Your task to perform on an android device: Go to Google maps Image 0: 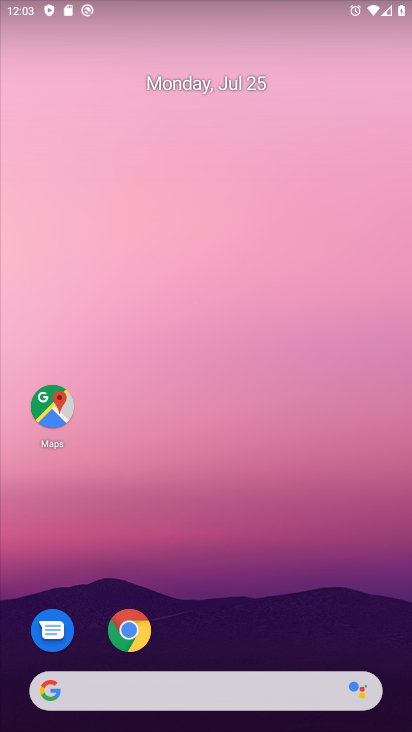
Step 0: drag from (266, 709) to (223, 151)
Your task to perform on an android device: Go to Google maps Image 1: 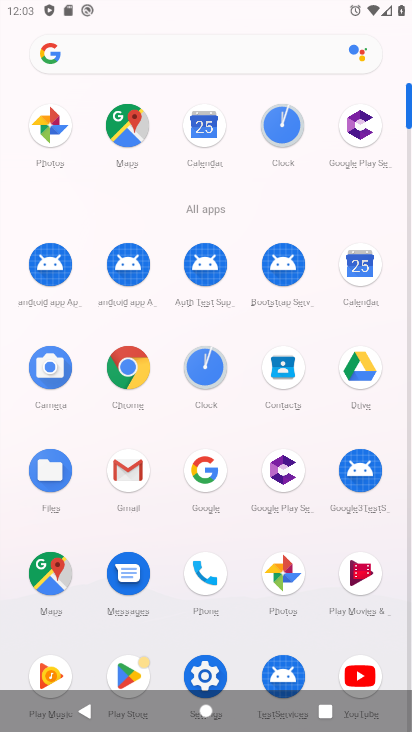
Step 1: click (45, 572)
Your task to perform on an android device: Go to Google maps Image 2: 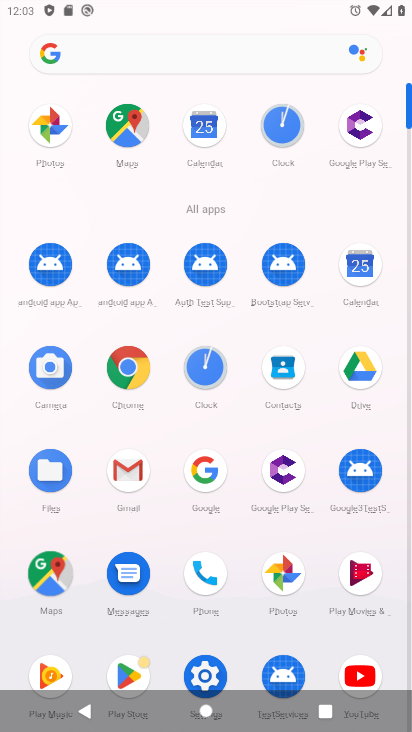
Step 2: click (53, 566)
Your task to perform on an android device: Go to Google maps Image 3: 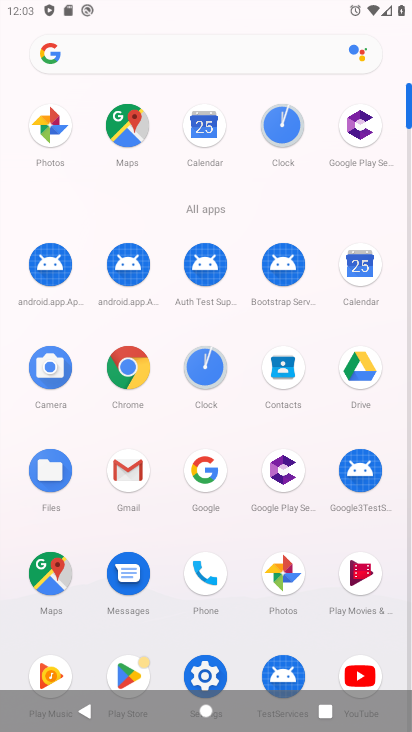
Step 3: click (59, 562)
Your task to perform on an android device: Go to Google maps Image 4: 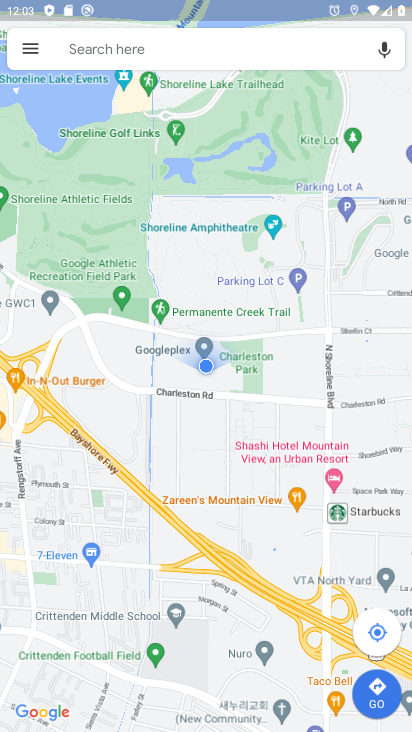
Step 4: task complete